Your task to perform on an android device: turn on priority inbox in the gmail app Image 0: 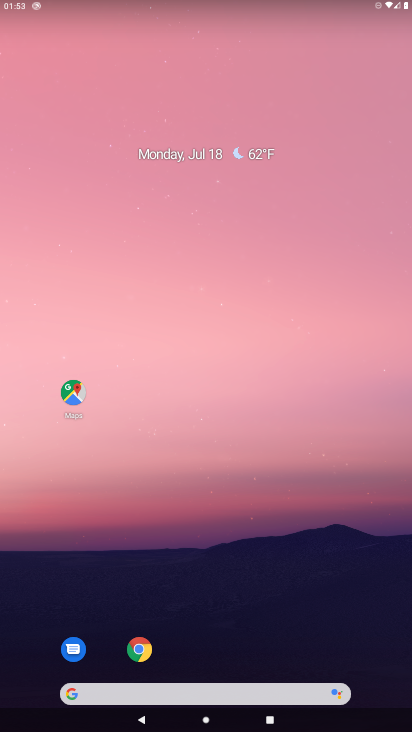
Step 0: drag from (54, 563) to (72, 126)
Your task to perform on an android device: turn on priority inbox in the gmail app Image 1: 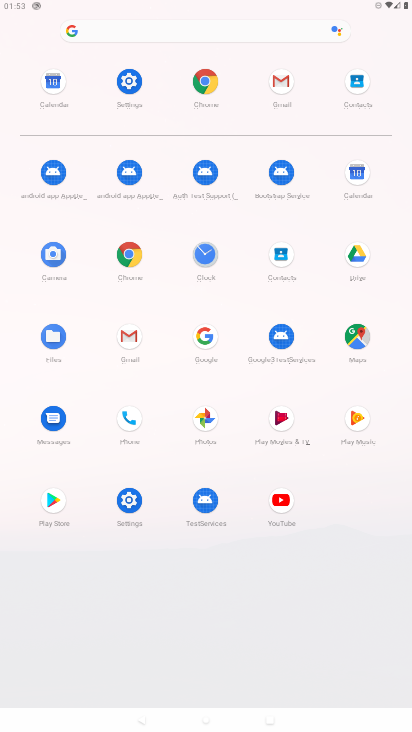
Step 1: click (128, 337)
Your task to perform on an android device: turn on priority inbox in the gmail app Image 2: 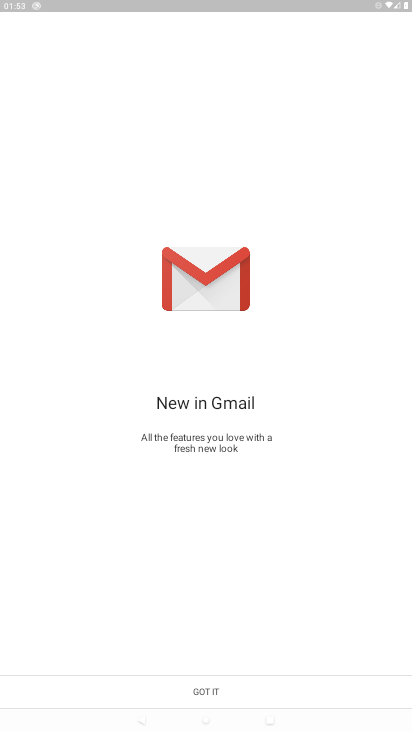
Step 2: click (189, 694)
Your task to perform on an android device: turn on priority inbox in the gmail app Image 3: 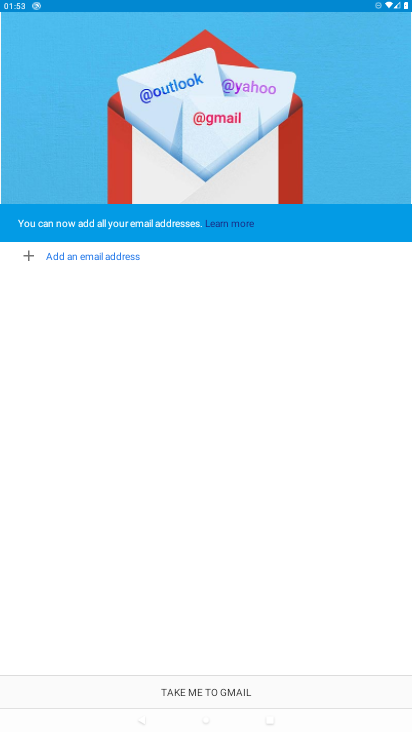
Step 3: click (191, 699)
Your task to perform on an android device: turn on priority inbox in the gmail app Image 4: 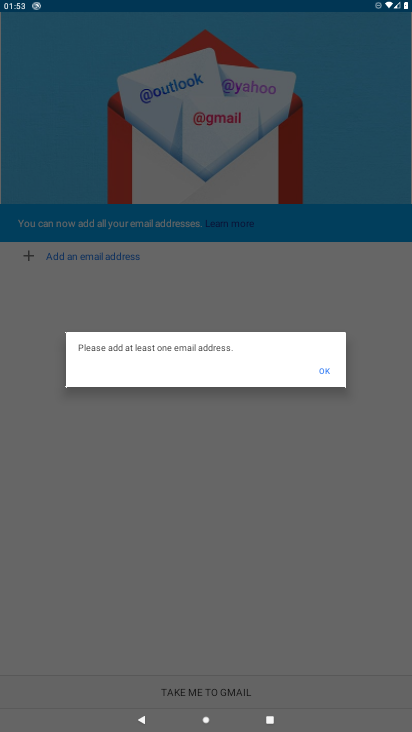
Step 4: click (322, 362)
Your task to perform on an android device: turn on priority inbox in the gmail app Image 5: 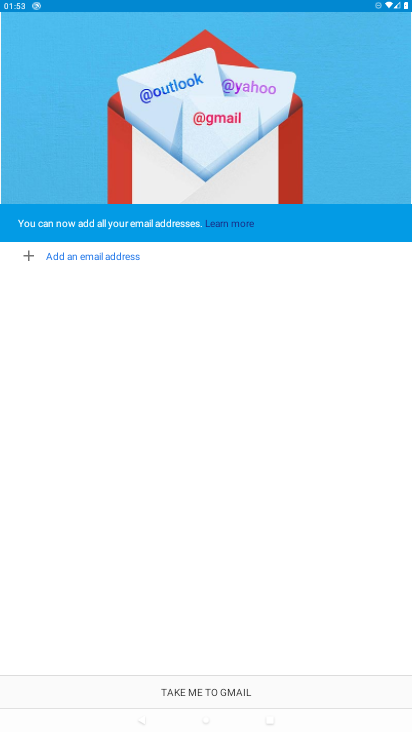
Step 5: click (220, 698)
Your task to perform on an android device: turn on priority inbox in the gmail app Image 6: 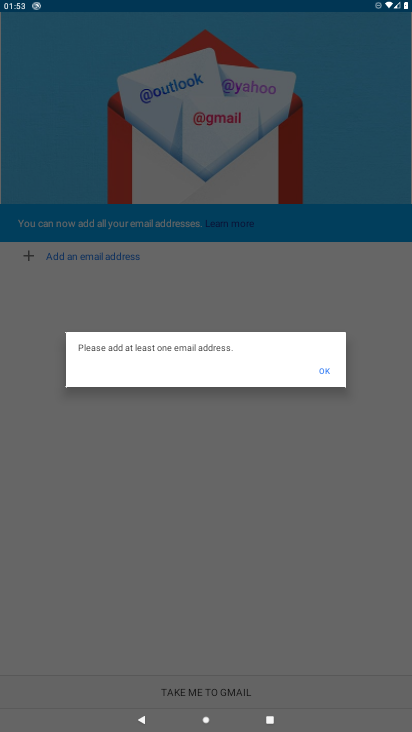
Step 6: click (324, 355)
Your task to perform on an android device: turn on priority inbox in the gmail app Image 7: 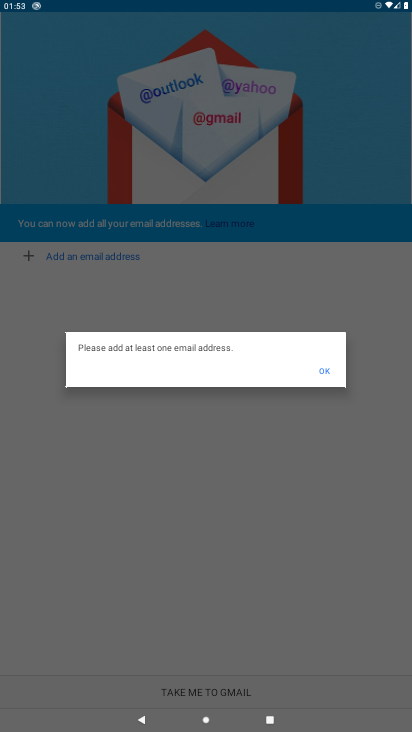
Step 7: click (318, 370)
Your task to perform on an android device: turn on priority inbox in the gmail app Image 8: 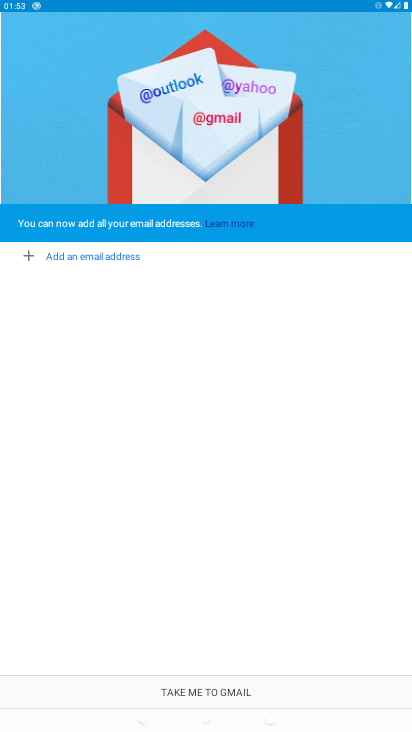
Step 8: task complete